Your task to perform on an android device: Open notification settings Image 0: 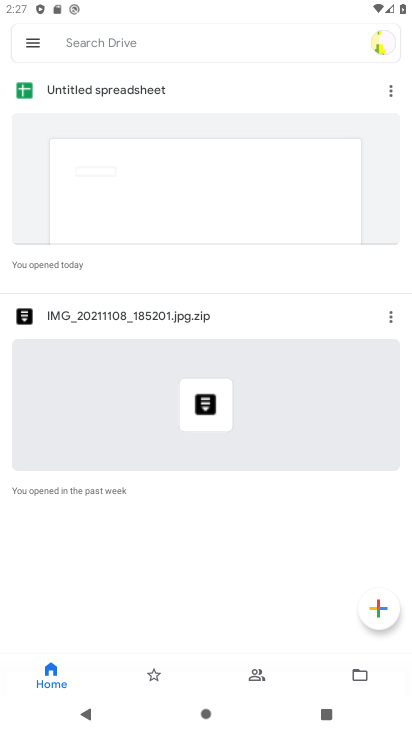
Step 0: press home button
Your task to perform on an android device: Open notification settings Image 1: 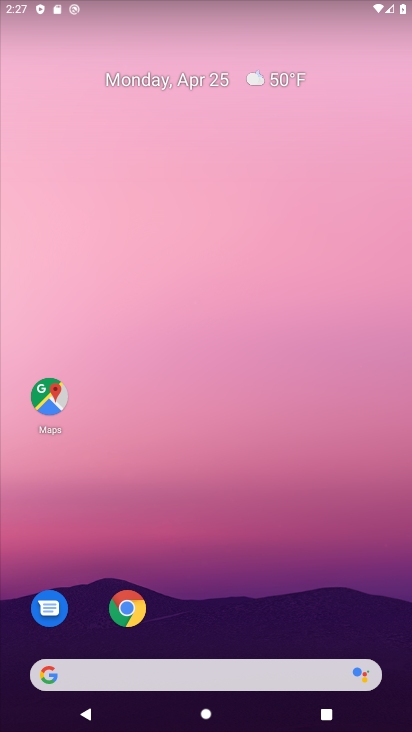
Step 1: drag from (212, 628) to (211, 161)
Your task to perform on an android device: Open notification settings Image 2: 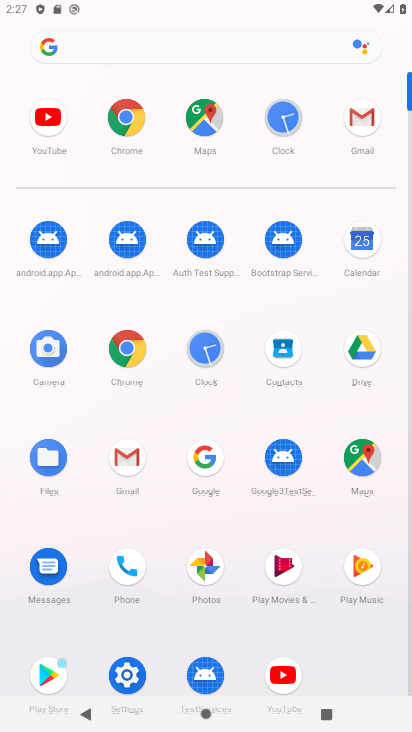
Step 2: click (125, 676)
Your task to perform on an android device: Open notification settings Image 3: 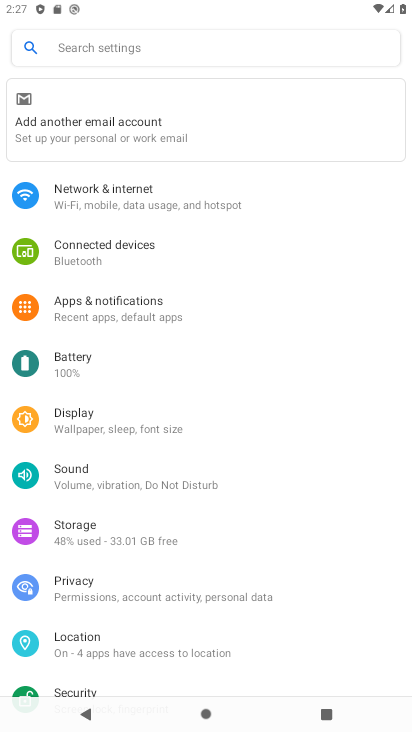
Step 3: click (162, 313)
Your task to perform on an android device: Open notification settings Image 4: 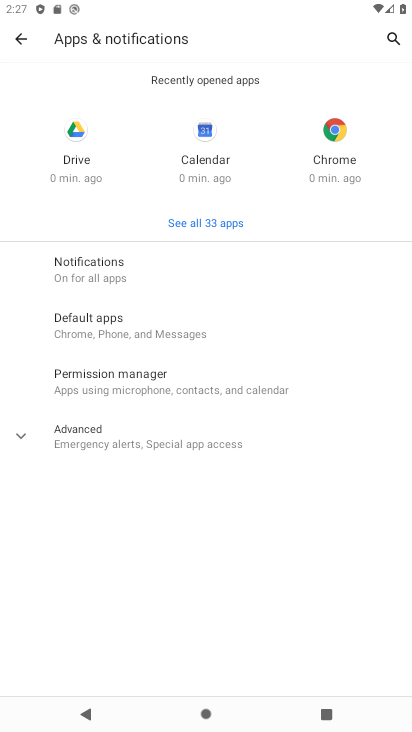
Step 4: click (125, 279)
Your task to perform on an android device: Open notification settings Image 5: 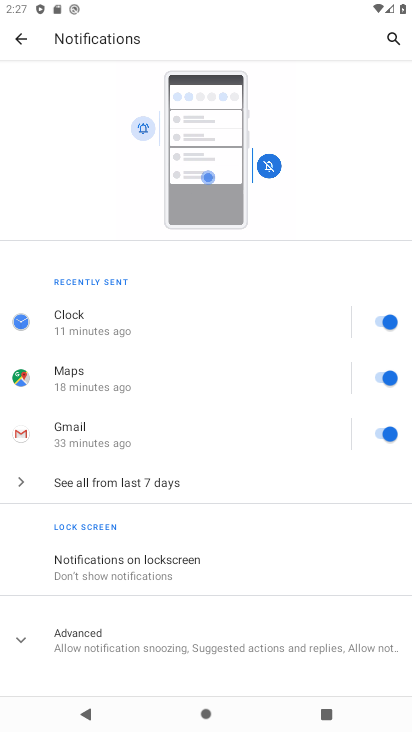
Step 5: task complete